Your task to perform on an android device: Open the stopwatch Image 0: 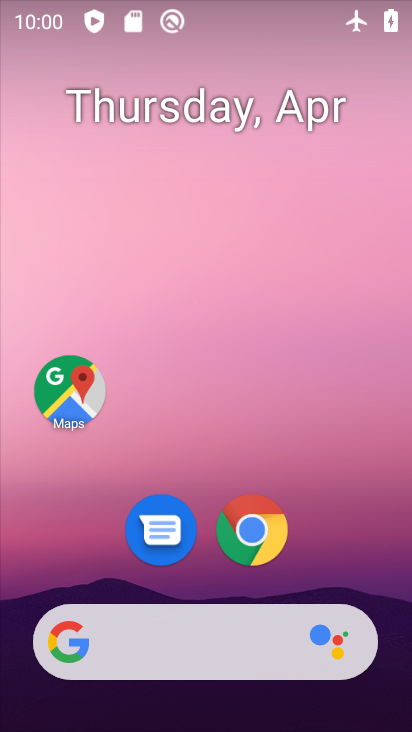
Step 0: drag from (207, 653) to (201, 131)
Your task to perform on an android device: Open the stopwatch Image 1: 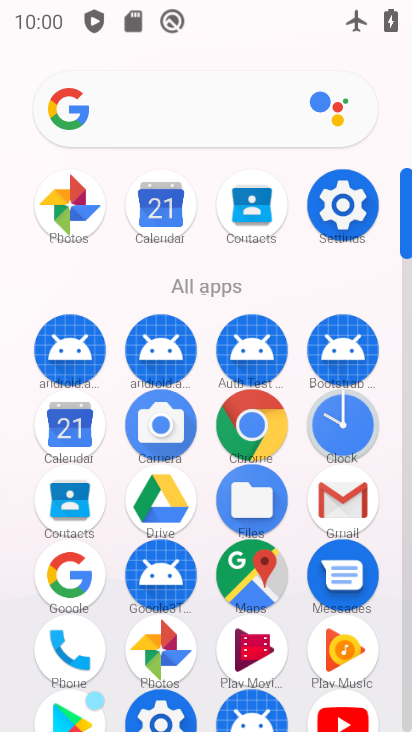
Step 1: click (345, 426)
Your task to perform on an android device: Open the stopwatch Image 2: 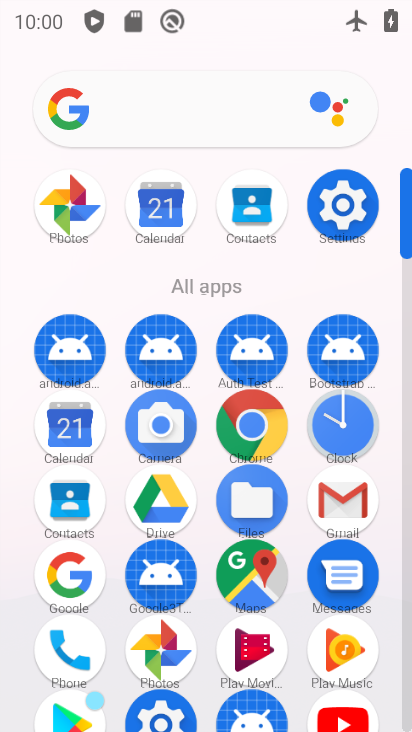
Step 2: click (345, 426)
Your task to perform on an android device: Open the stopwatch Image 3: 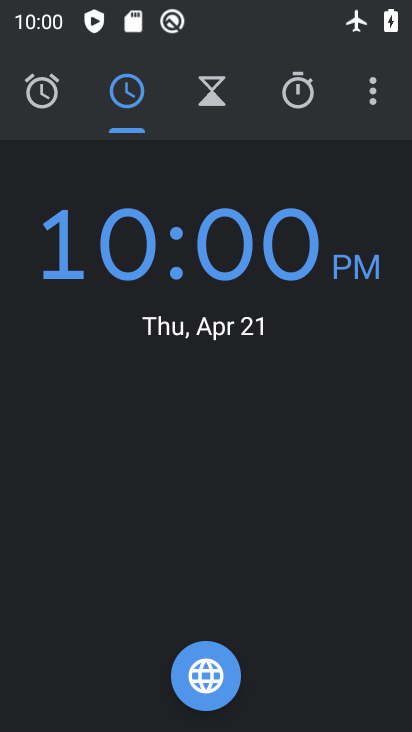
Step 3: click (292, 92)
Your task to perform on an android device: Open the stopwatch Image 4: 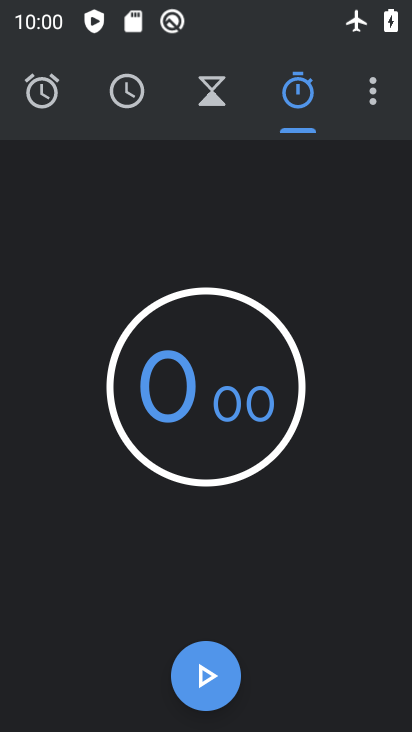
Step 4: task complete